Your task to perform on an android device: open wifi settings Image 0: 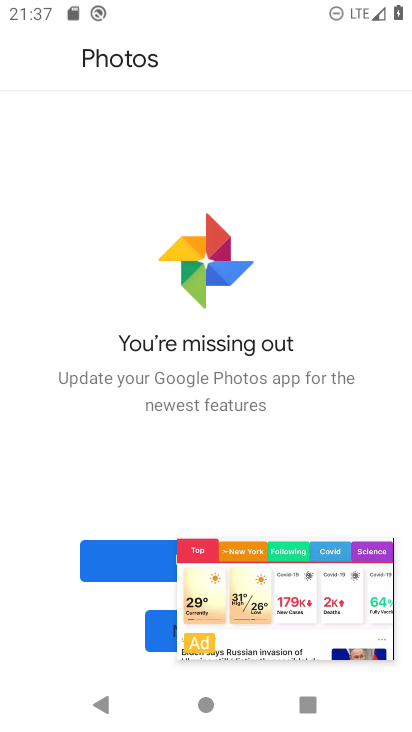
Step 0: press home button
Your task to perform on an android device: open wifi settings Image 1: 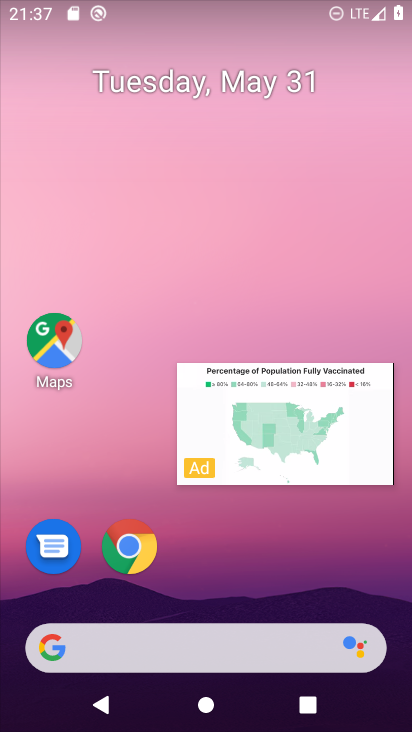
Step 1: click (347, 383)
Your task to perform on an android device: open wifi settings Image 2: 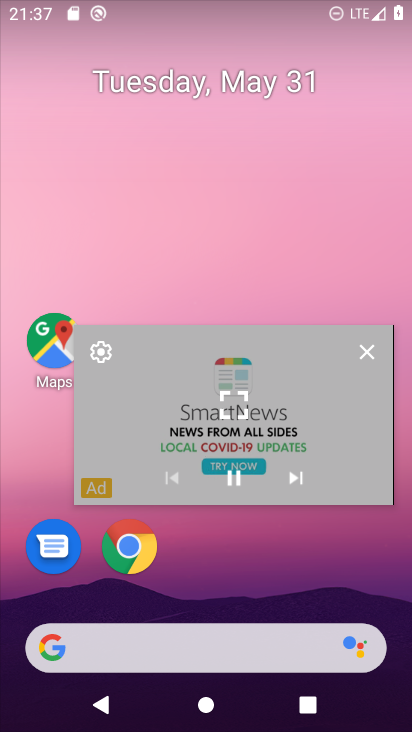
Step 2: click (363, 349)
Your task to perform on an android device: open wifi settings Image 3: 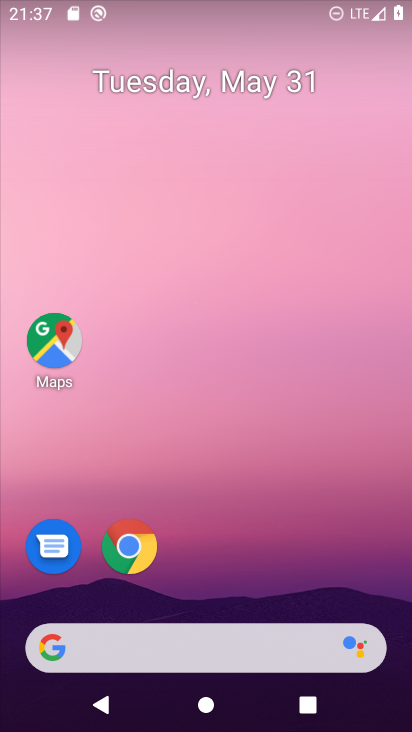
Step 3: drag from (387, 708) to (335, 103)
Your task to perform on an android device: open wifi settings Image 4: 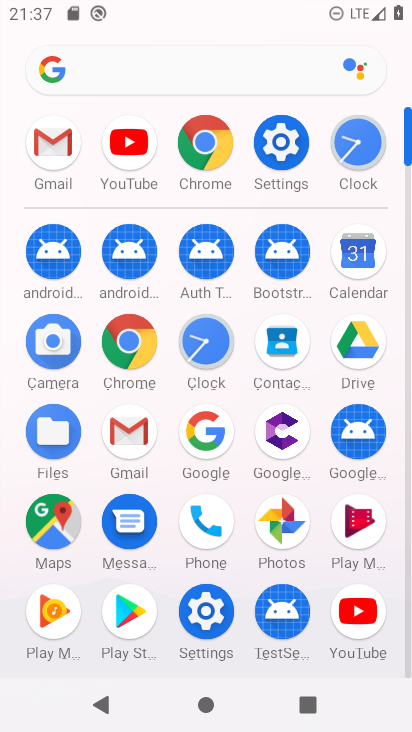
Step 4: click (283, 135)
Your task to perform on an android device: open wifi settings Image 5: 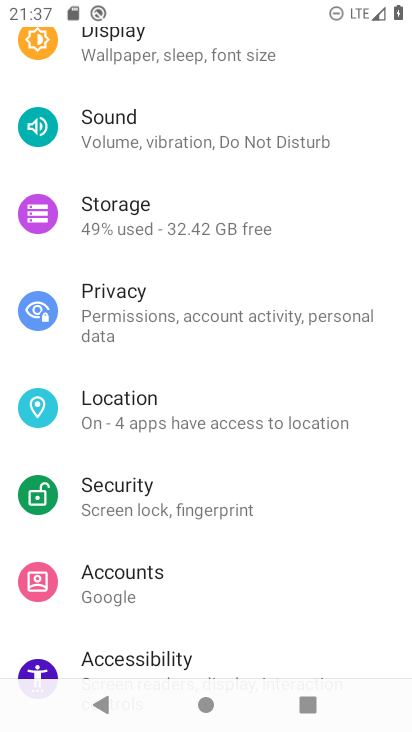
Step 5: drag from (331, 89) to (329, 601)
Your task to perform on an android device: open wifi settings Image 6: 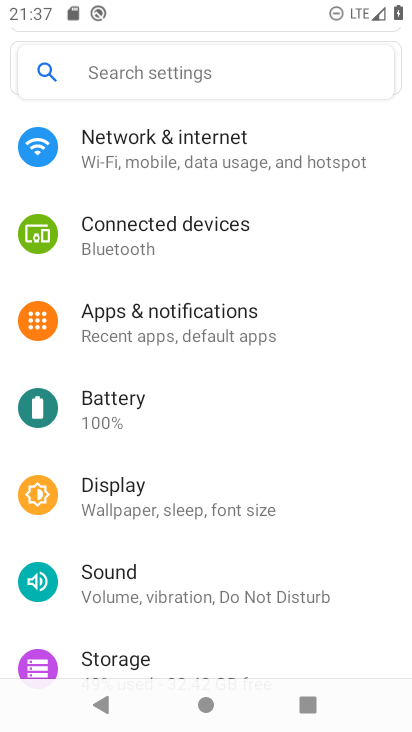
Step 6: click (180, 151)
Your task to perform on an android device: open wifi settings Image 7: 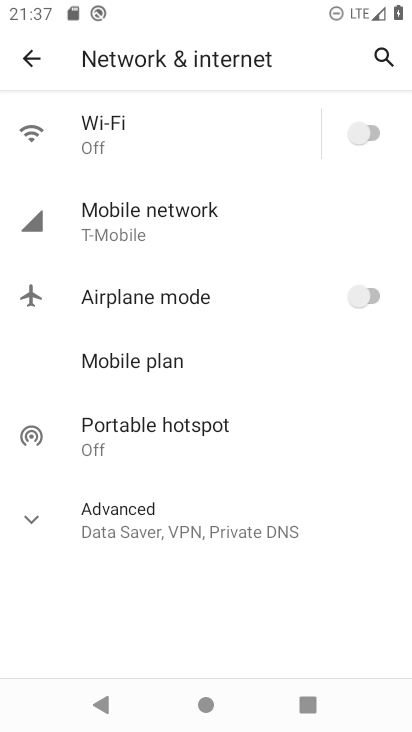
Step 7: click (182, 147)
Your task to perform on an android device: open wifi settings Image 8: 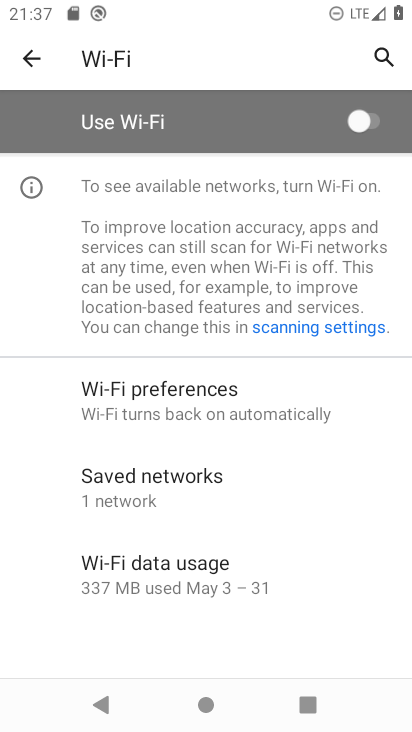
Step 8: task complete